Your task to perform on an android device: turn on the 12-hour format for clock Image 0: 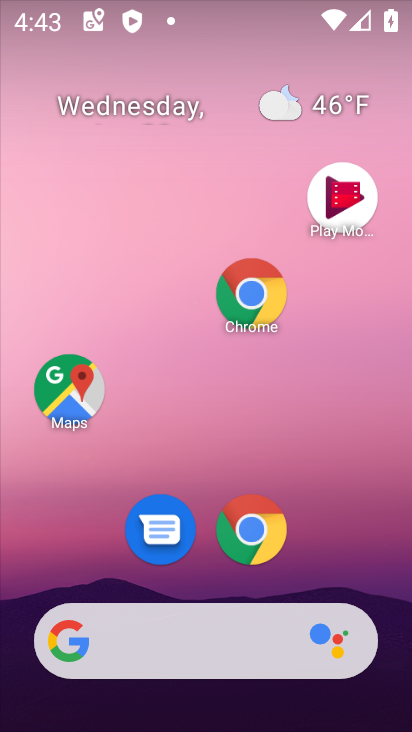
Step 0: drag from (332, 411) to (339, 100)
Your task to perform on an android device: turn on the 12-hour format for clock Image 1: 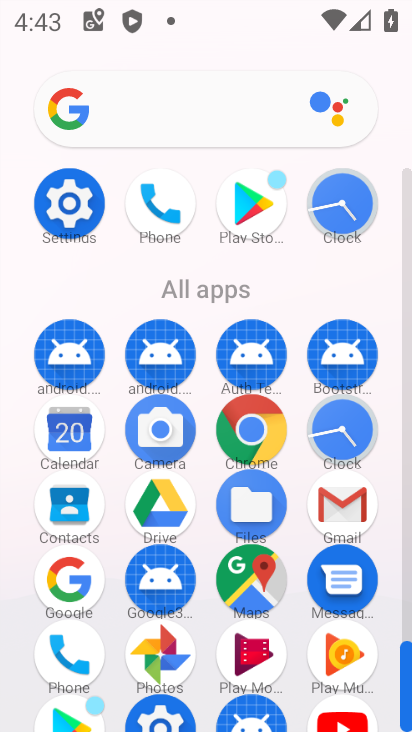
Step 1: click (349, 420)
Your task to perform on an android device: turn on the 12-hour format for clock Image 2: 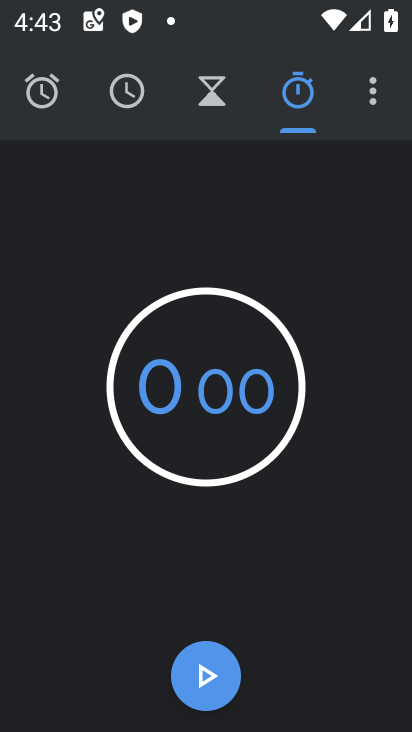
Step 2: drag from (378, 104) to (355, 192)
Your task to perform on an android device: turn on the 12-hour format for clock Image 3: 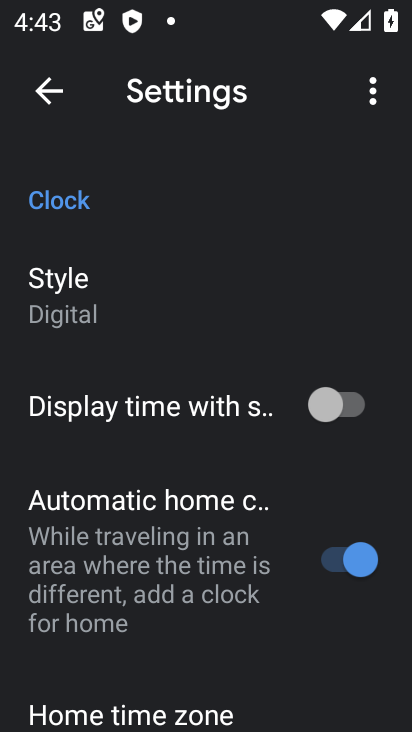
Step 3: drag from (233, 628) to (292, 114)
Your task to perform on an android device: turn on the 12-hour format for clock Image 4: 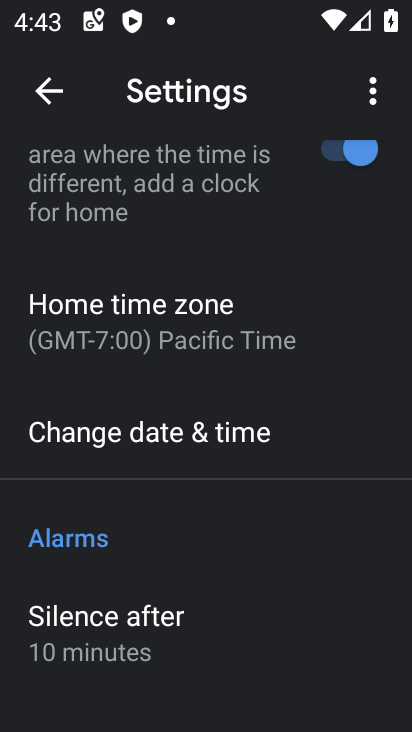
Step 4: click (235, 443)
Your task to perform on an android device: turn on the 12-hour format for clock Image 5: 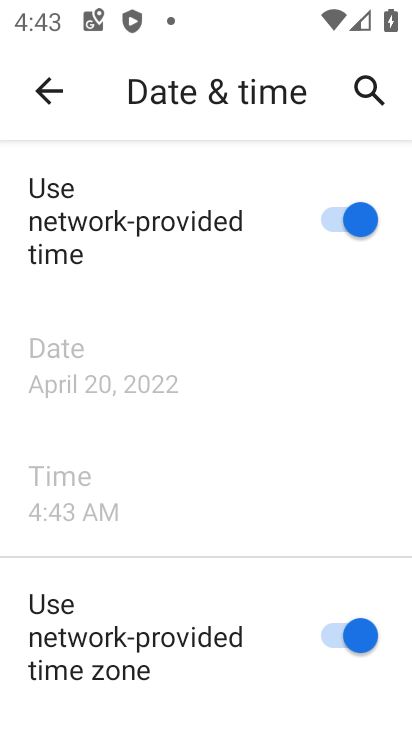
Step 5: task complete